Your task to perform on an android device: toggle pop-ups in chrome Image 0: 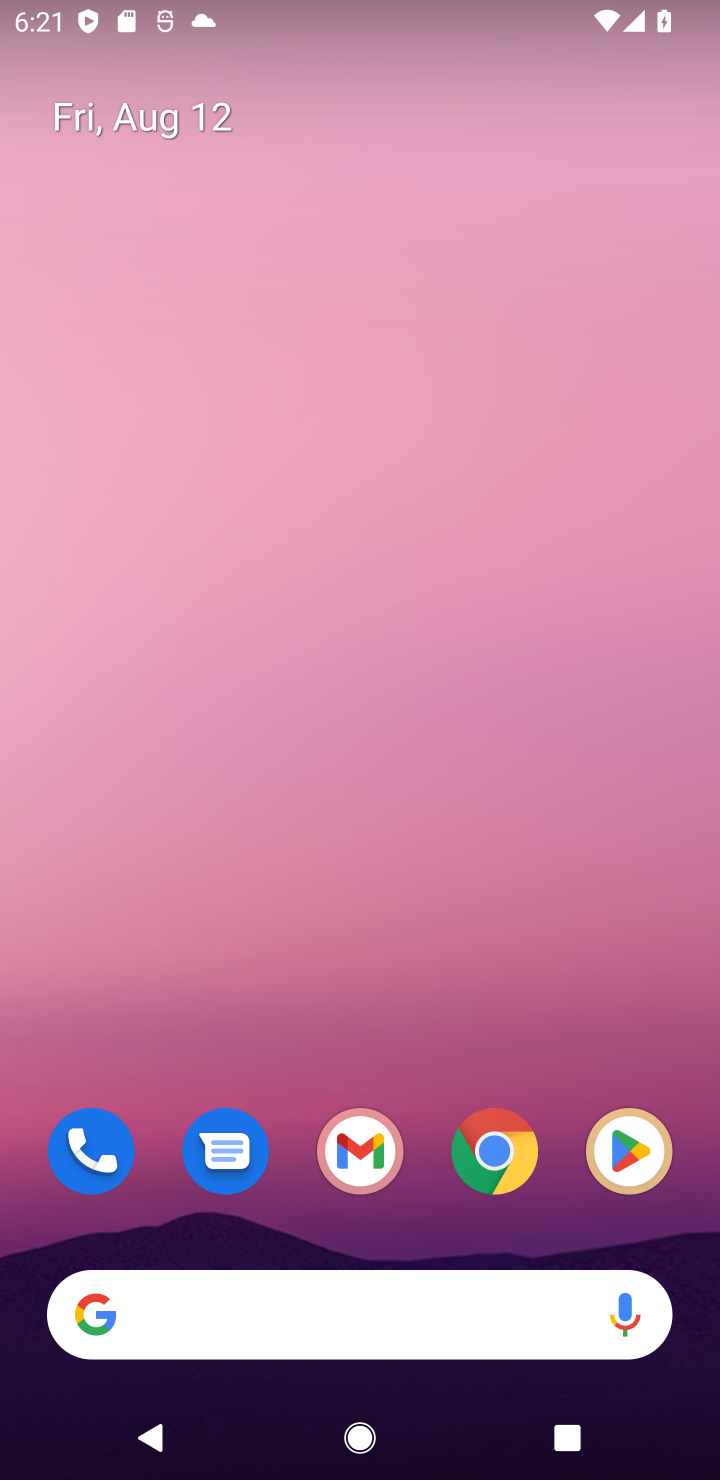
Step 0: drag from (414, 895) to (457, 133)
Your task to perform on an android device: toggle pop-ups in chrome Image 1: 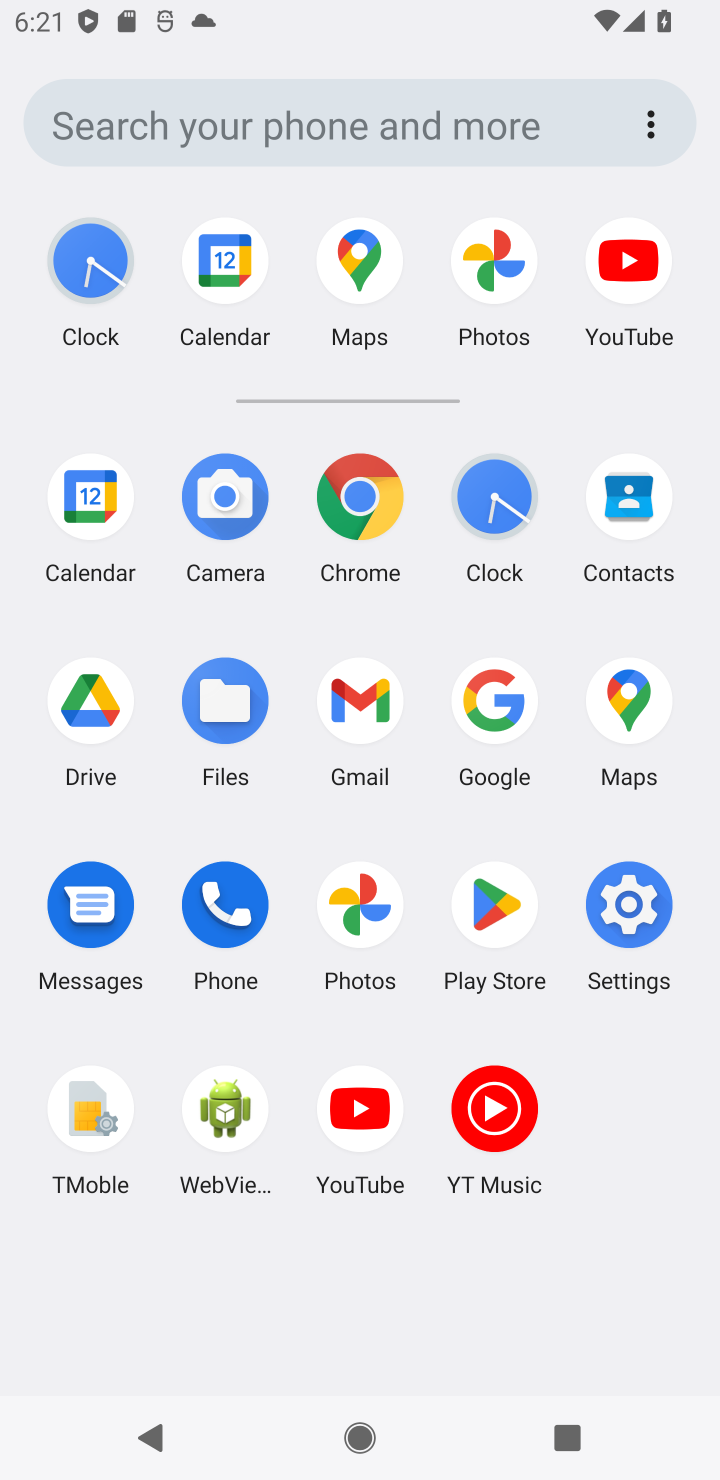
Step 1: click (365, 501)
Your task to perform on an android device: toggle pop-ups in chrome Image 2: 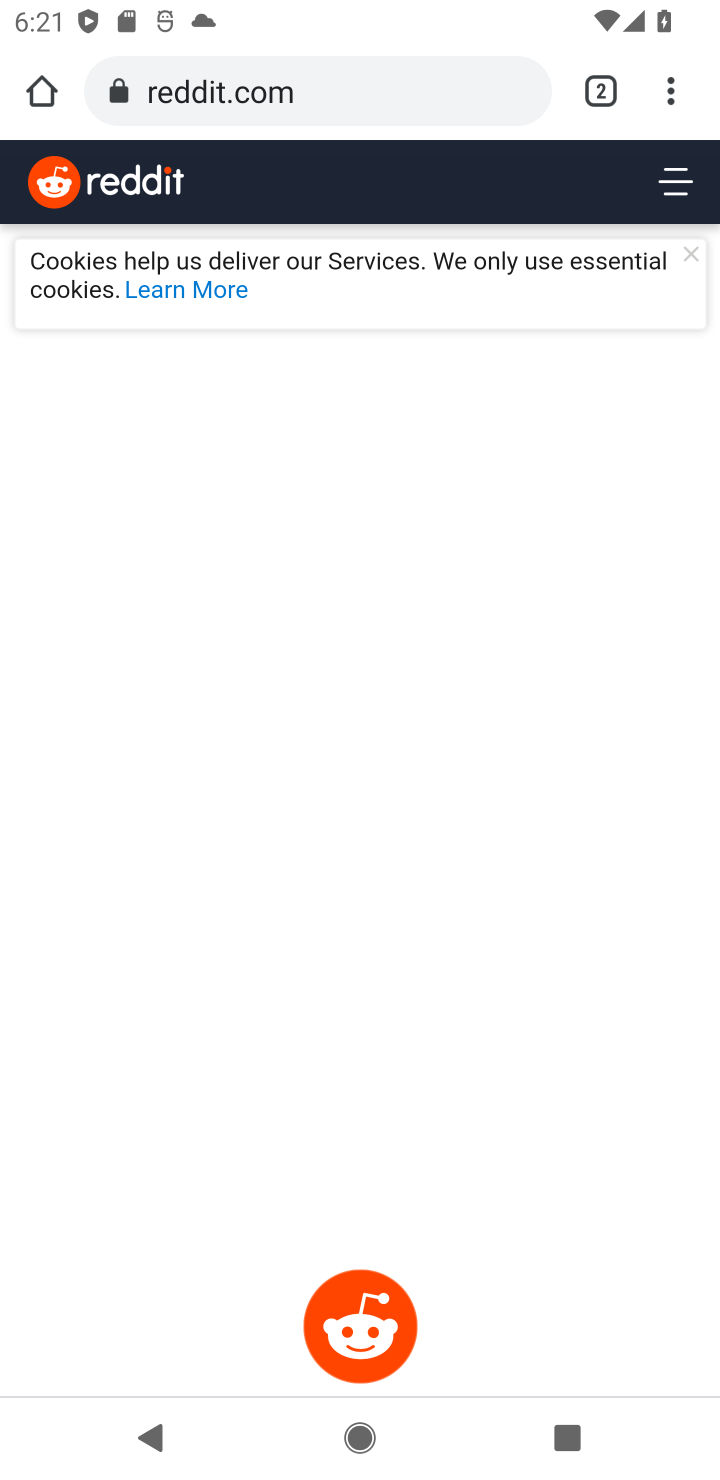
Step 2: drag from (672, 81) to (443, 1262)
Your task to perform on an android device: toggle pop-ups in chrome Image 3: 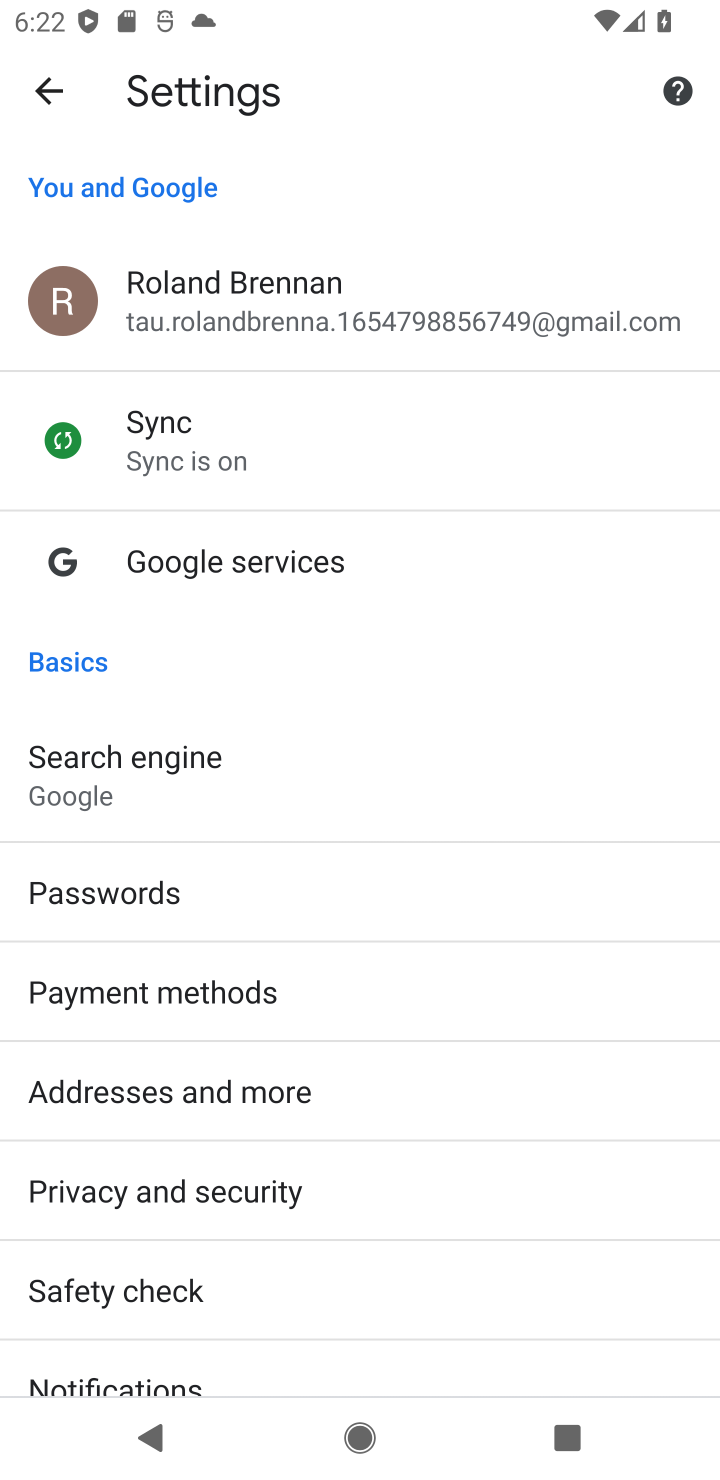
Step 3: drag from (418, 1300) to (468, 493)
Your task to perform on an android device: toggle pop-ups in chrome Image 4: 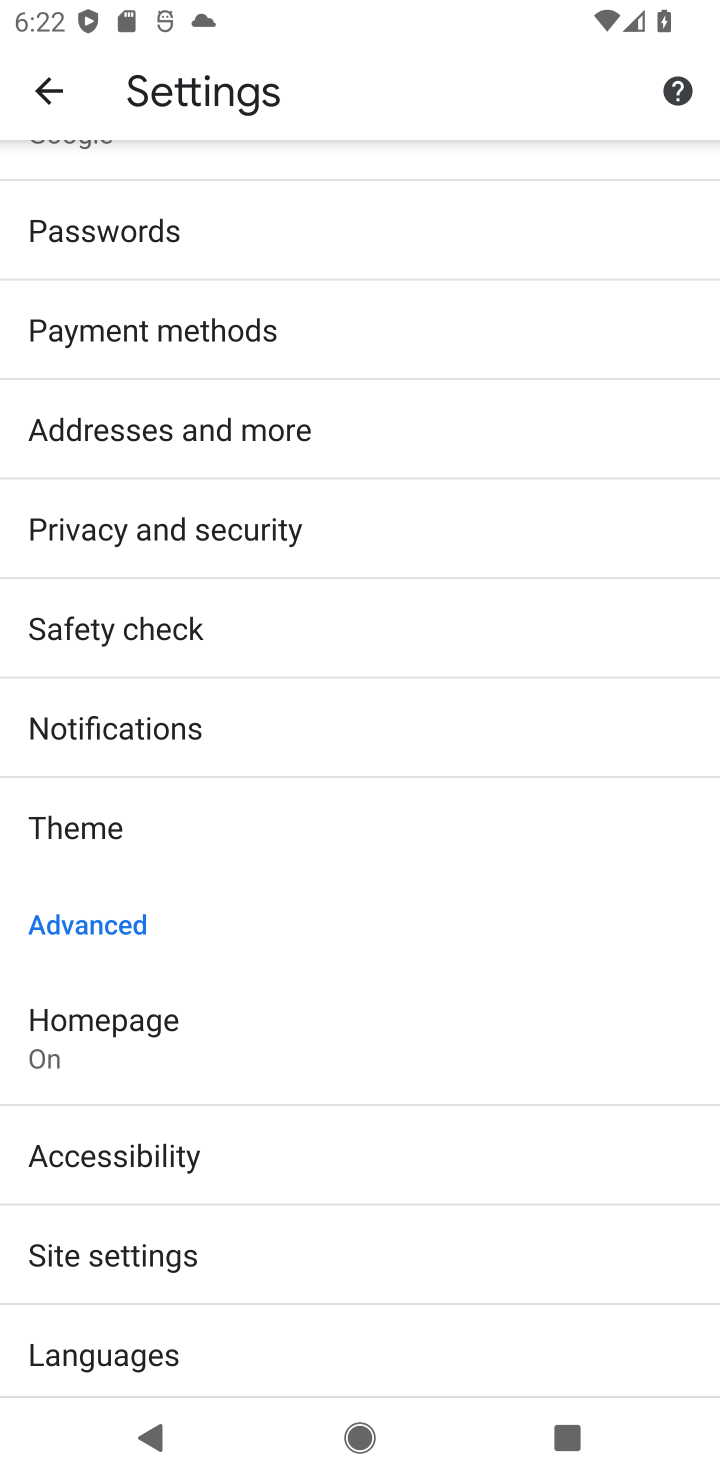
Step 4: click (158, 1261)
Your task to perform on an android device: toggle pop-ups in chrome Image 5: 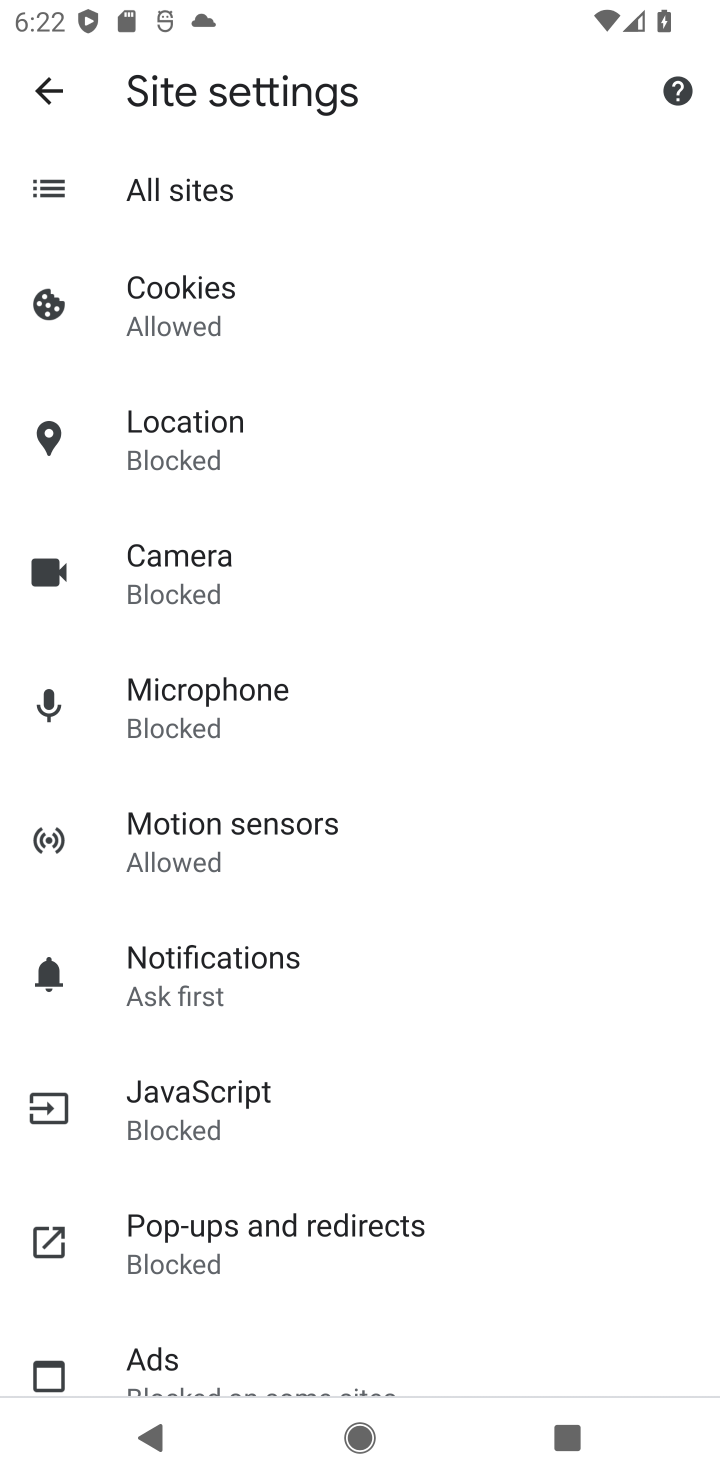
Step 5: click (312, 1221)
Your task to perform on an android device: toggle pop-ups in chrome Image 6: 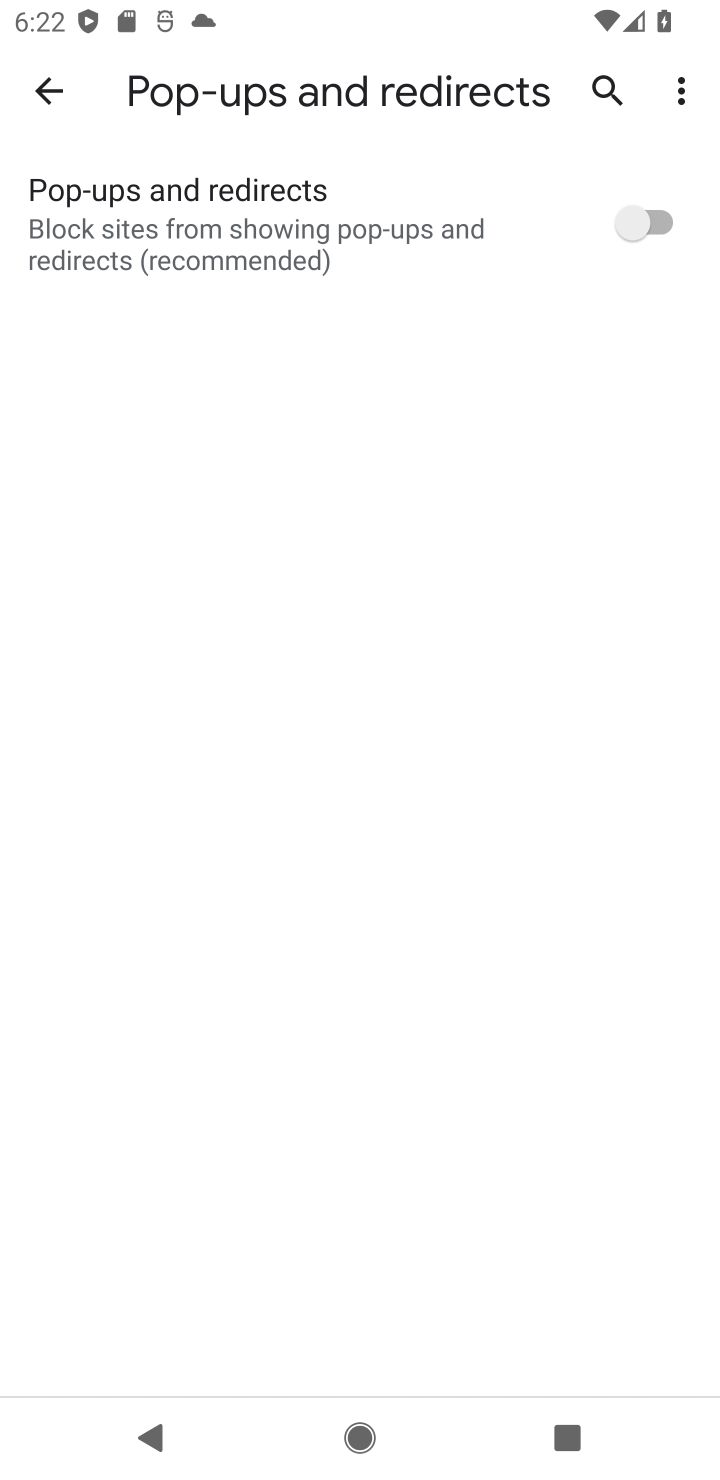
Step 6: click (618, 231)
Your task to perform on an android device: toggle pop-ups in chrome Image 7: 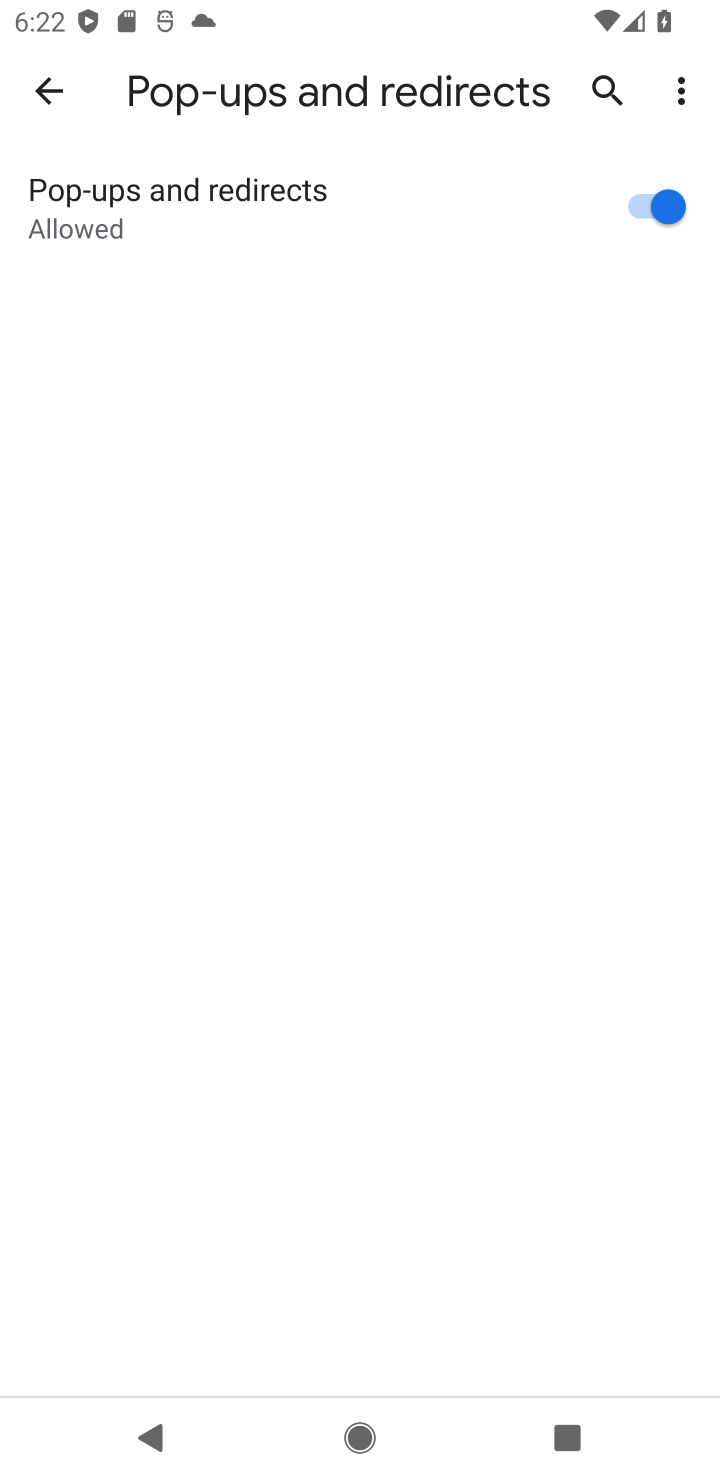
Step 7: task complete